Your task to perform on an android device: Open CNN.com Image 0: 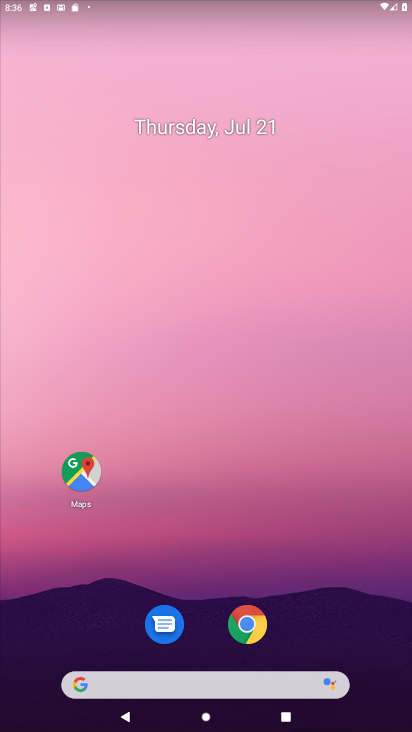
Step 0: click (218, 679)
Your task to perform on an android device: Open CNN.com Image 1: 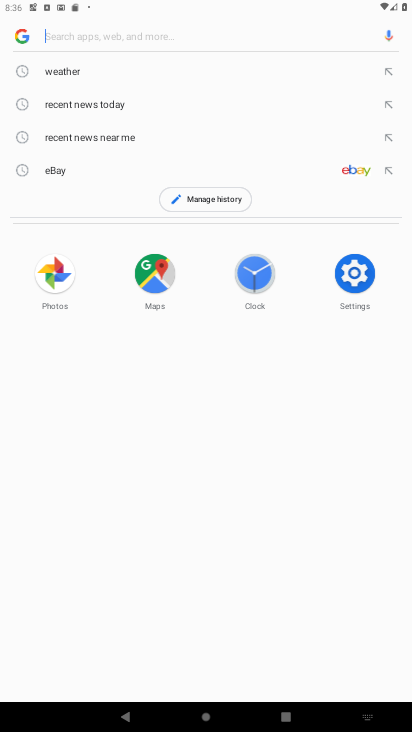
Step 1: click (182, 25)
Your task to perform on an android device: Open CNN.com Image 2: 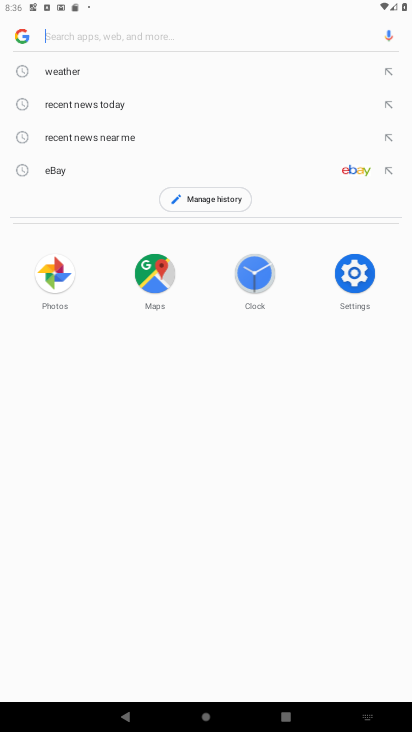
Step 2: type "CNN.com"
Your task to perform on an android device: Open CNN.com Image 3: 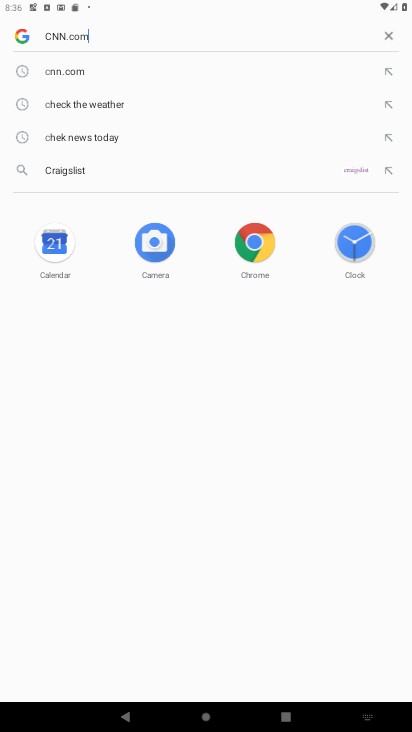
Step 3: type ""
Your task to perform on an android device: Open CNN.com Image 4: 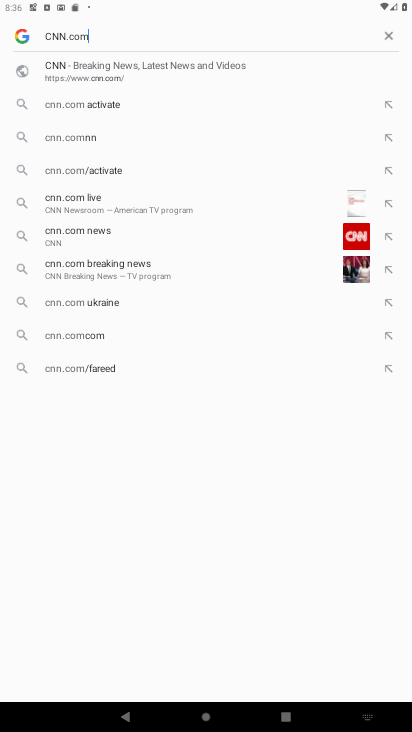
Step 4: click (129, 75)
Your task to perform on an android device: Open CNN.com Image 5: 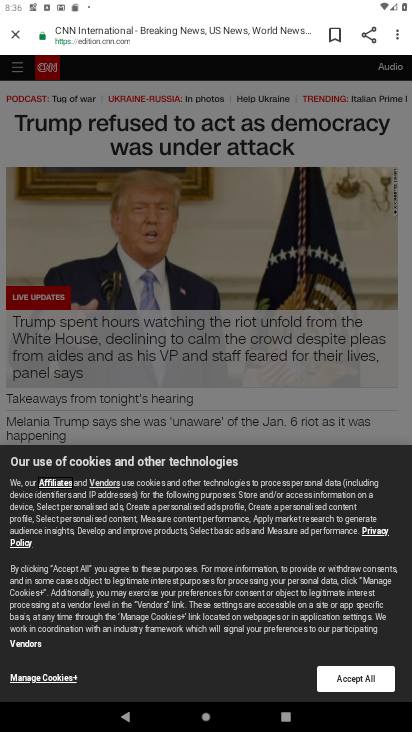
Step 5: task complete